Your task to perform on an android device: turn on airplane mode Image 0: 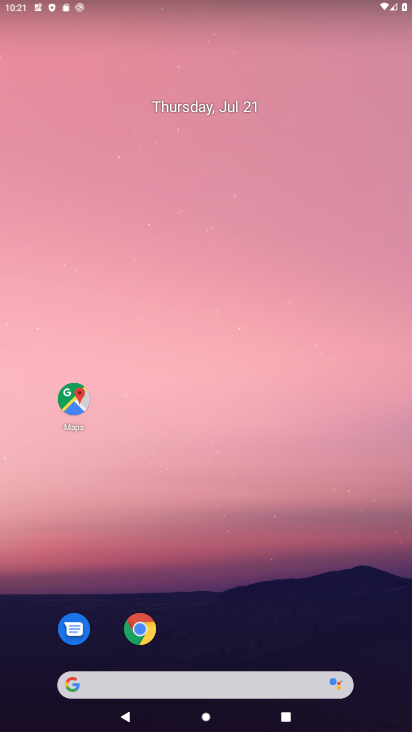
Step 0: drag from (264, 6) to (294, 420)
Your task to perform on an android device: turn on airplane mode Image 1: 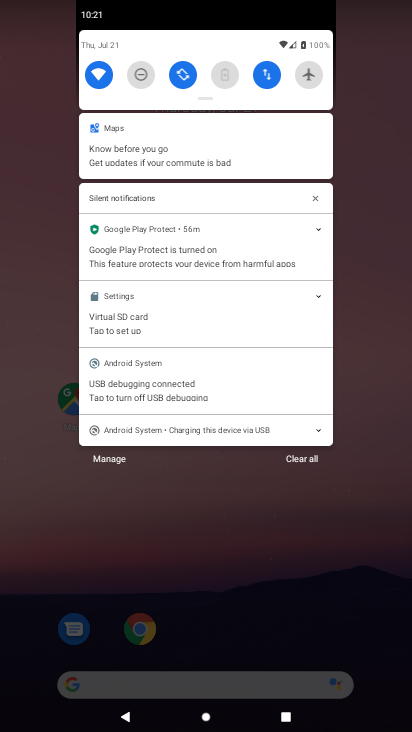
Step 1: click (315, 89)
Your task to perform on an android device: turn on airplane mode Image 2: 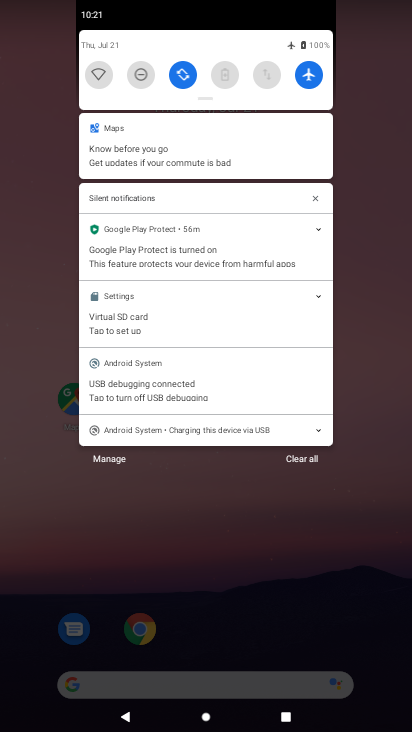
Step 2: task complete